Your task to perform on an android device: Open calendar and show me the first week of next month Image 0: 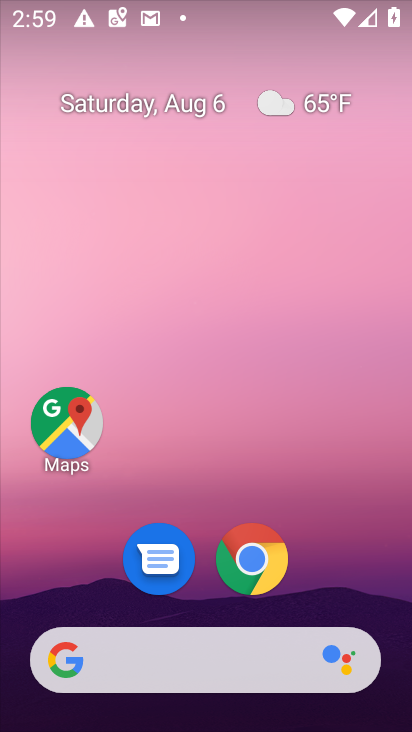
Step 0: drag from (196, 478) to (195, 147)
Your task to perform on an android device: Open calendar and show me the first week of next month Image 1: 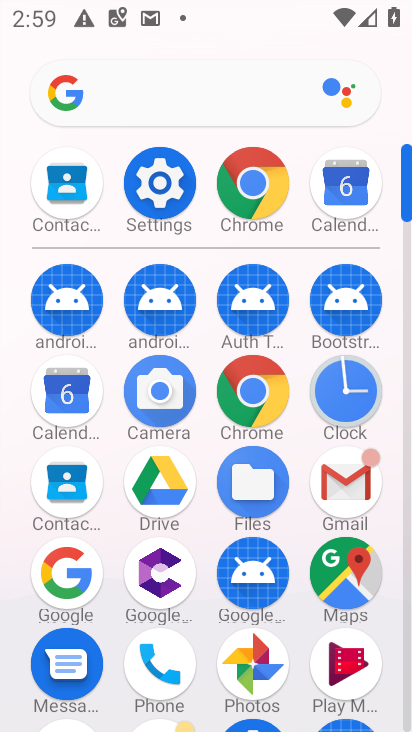
Step 1: click (50, 425)
Your task to perform on an android device: Open calendar and show me the first week of next month Image 2: 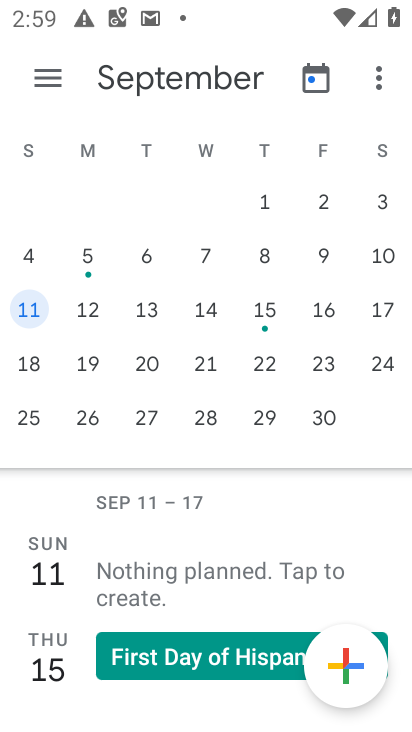
Step 2: click (189, 94)
Your task to perform on an android device: Open calendar and show me the first week of next month Image 3: 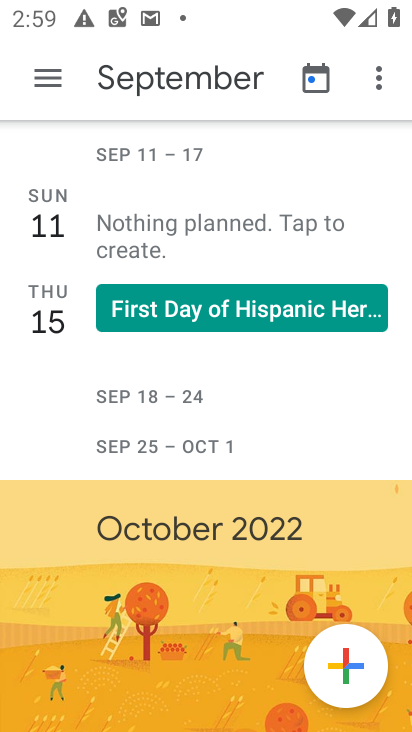
Step 3: click (168, 106)
Your task to perform on an android device: Open calendar and show me the first week of next month Image 4: 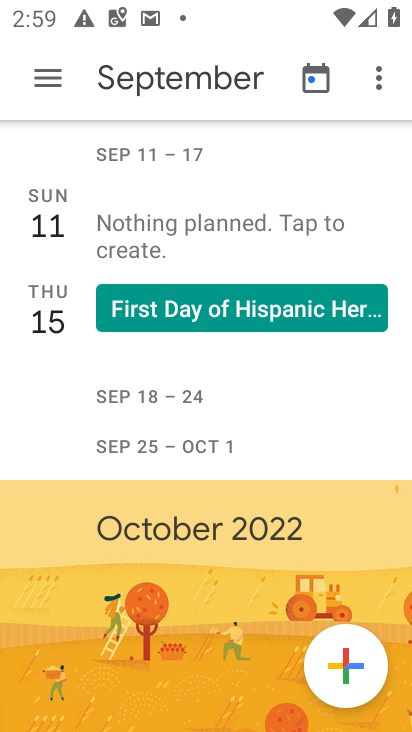
Step 4: click (190, 87)
Your task to perform on an android device: Open calendar and show me the first week of next month Image 5: 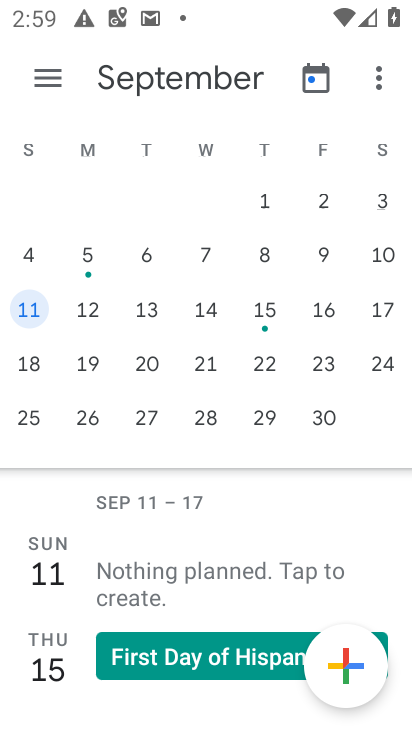
Step 5: click (253, 190)
Your task to perform on an android device: Open calendar and show me the first week of next month Image 6: 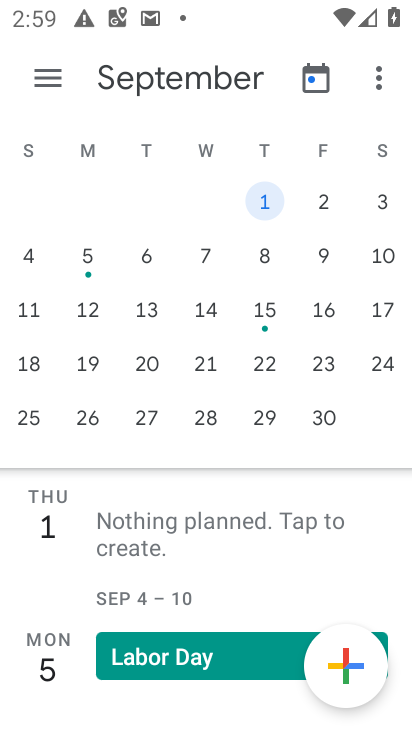
Step 6: task complete